Your task to perform on an android device: open chrome and create a bookmark for the current page Image 0: 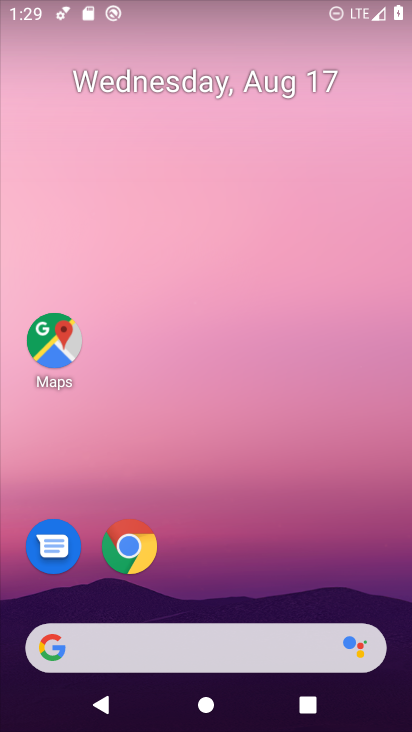
Step 0: click (133, 559)
Your task to perform on an android device: open chrome and create a bookmark for the current page Image 1: 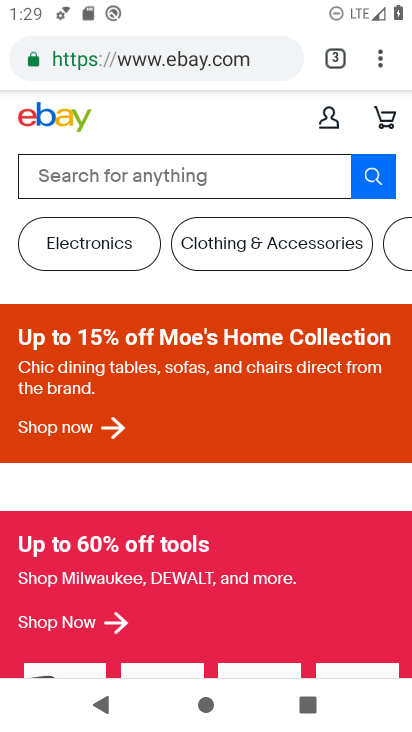
Step 1: click (375, 51)
Your task to perform on an android device: open chrome and create a bookmark for the current page Image 2: 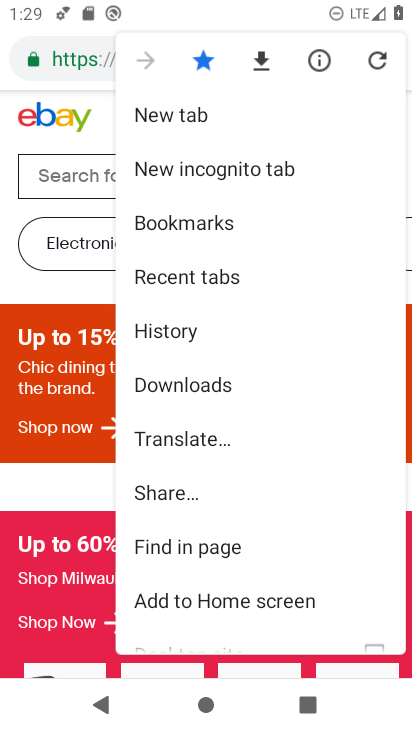
Step 2: task complete